Your task to perform on an android device: toggle wifi Image 0: 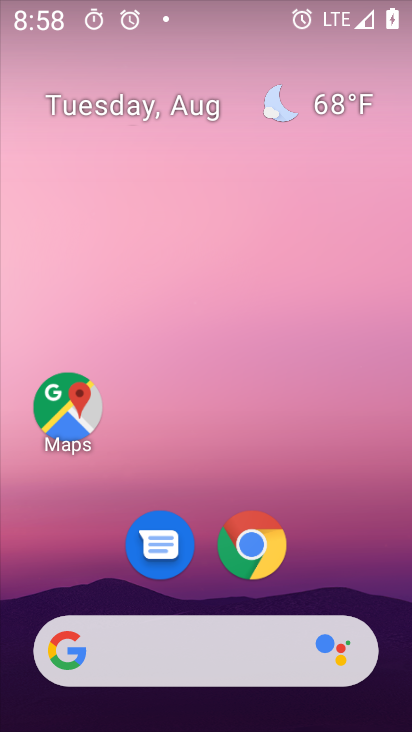
Step 0: drag from (309, 585) to (317, 109)
Your task to perform on an android device: toggle wifi Image 1: 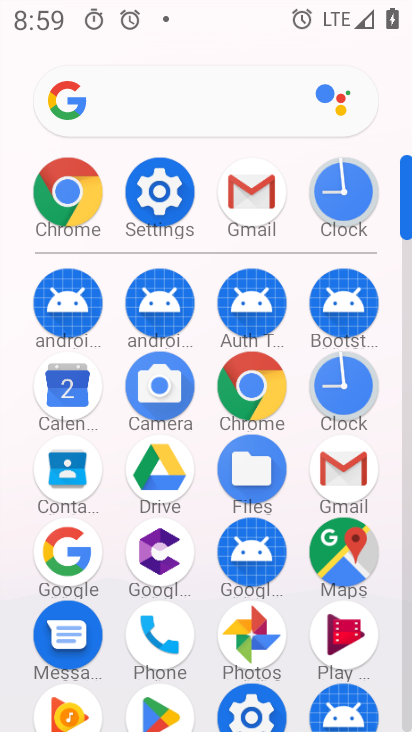
Step 1: click (185, 188)
Your task to perform on an android device: toggle wifi Image 2: 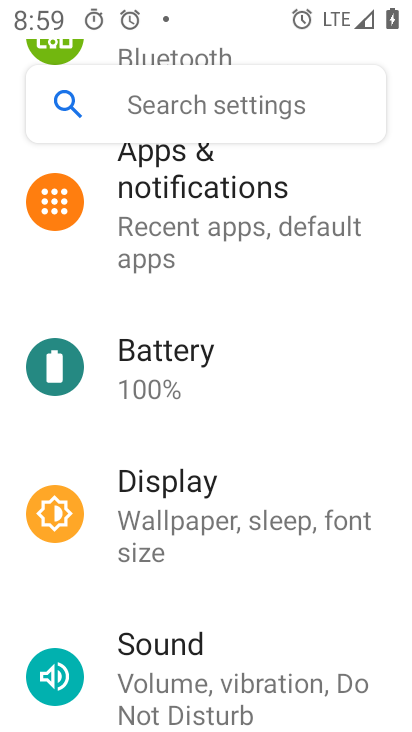
Step 2: drag from (180, 222) to (110, 728)
Your task to perform on an android device: toggle wifi Image 3: 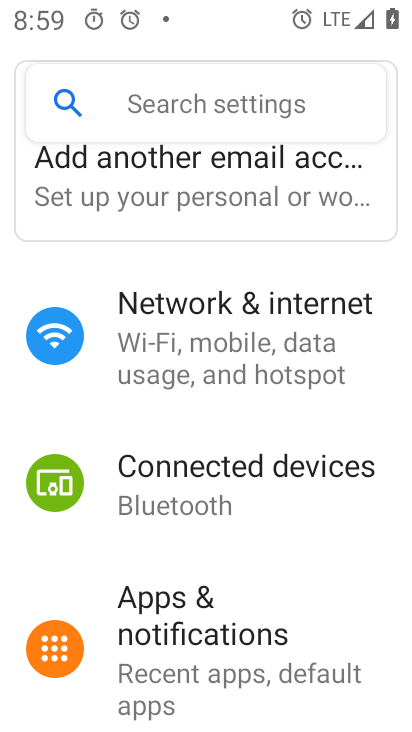
Step 3: click (193, 336)
Your task to perform on an android device: toggle wifi Image 4: 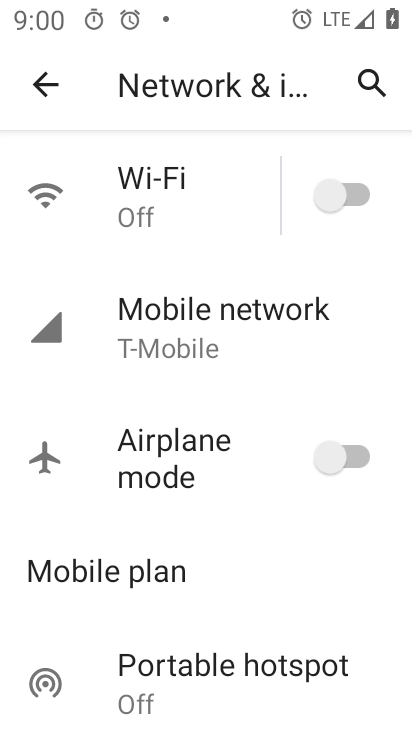
Step 4: click (366, 199)
Your task to perform on an android device: toggle wifi Image 5: 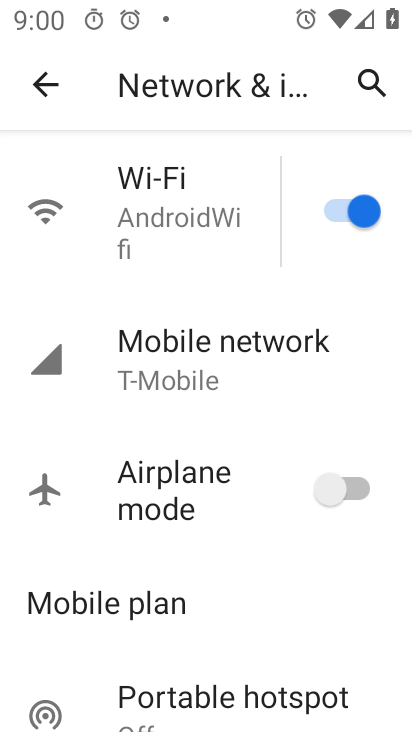
Step 5: click (320, 218)
Your task to perform on an android device: toggle wifi Image 6: 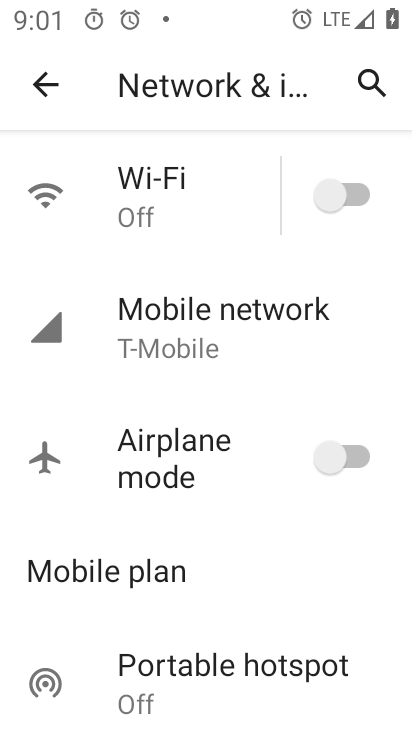
Step 6: task complete